Your task to perform on an android device: turn on the 24-hour format for clock Image 0: 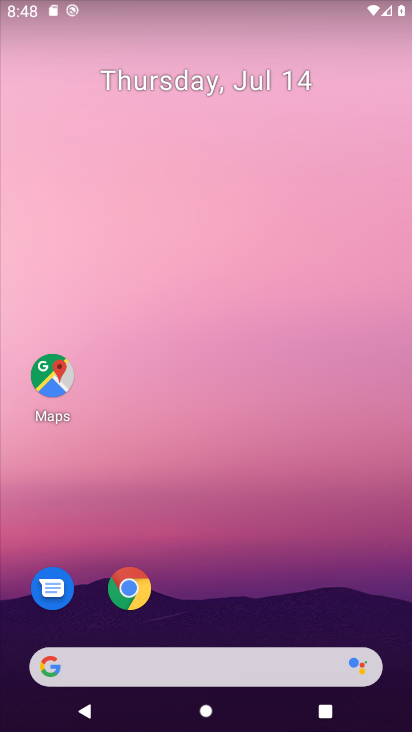
Step 0: drag from (365, 588) to (361, 111)
Your task to perform on an android device: turn on the 24-hour format for clock Image 1: 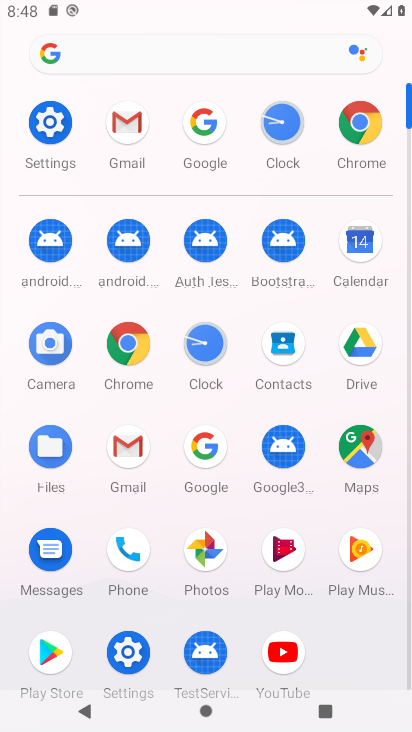
Step 1: click (201, 341)
Your task to perform on an android device: turn on the 24-hour format for clock Image 2: 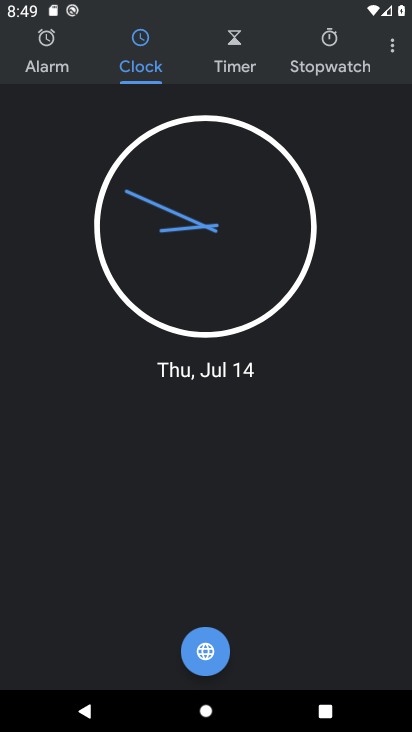
Step 2: click (392, 49)
Your task to perform on an android device: turn on the 24-hour format for clock Image 3: 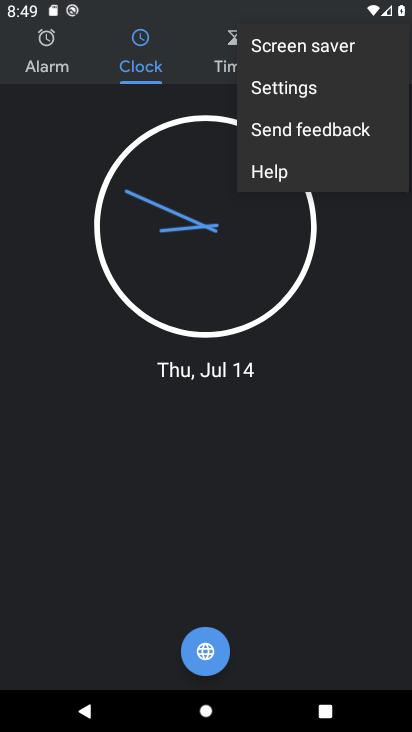
Step 3: click (312, 90)
Your task to perform on an android device: turn on the 24-hour format for clock Image 4: 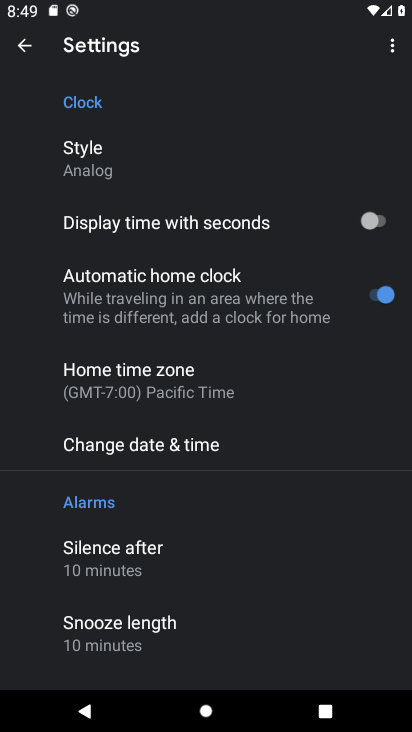
Step 4: drag from (336, 429) to (340, 351)
Your task to perform on an android device: turn on the 24-hour format for clock Image 5: 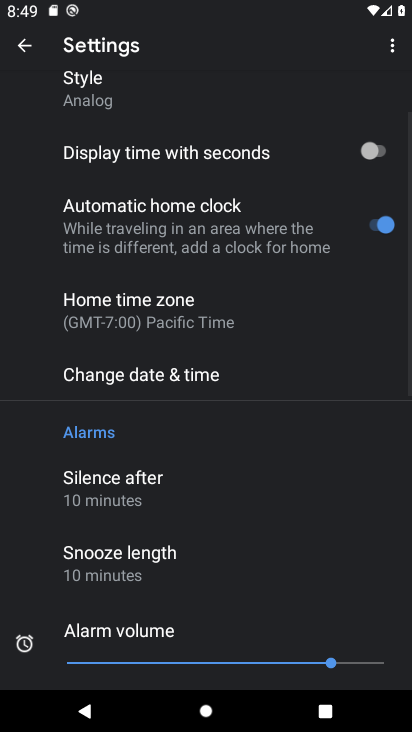
Step 5: drag from (351, 452) to (349, 380)
Your task to perform on an android device: turn on the 24-hour format for clock Image 6: 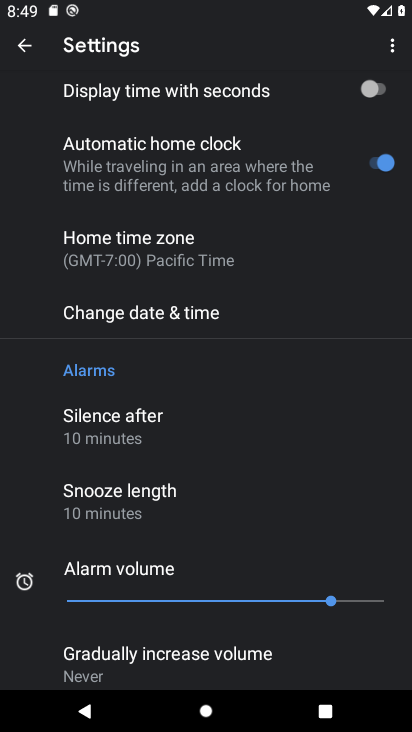
Step 6: drag from (342, 428) to (345, 348)
Your task to perform on an android device: turn on the 24-hour format for clock Image 7: 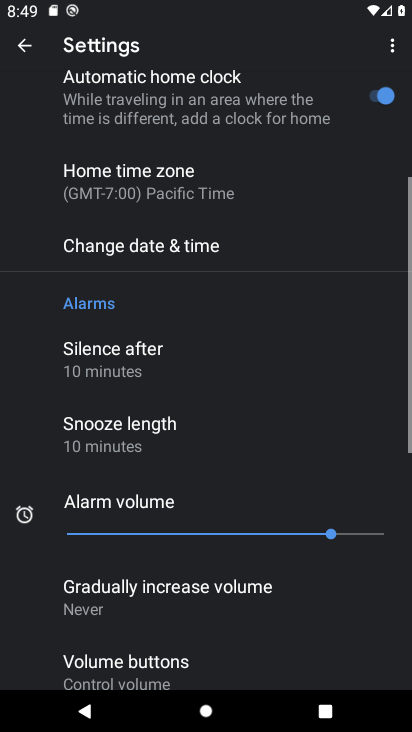
Step 7: drag from (364, 444) to (363, 332)
Your task to perform on an android device: turn on the 24-hour format for clock Image 8: 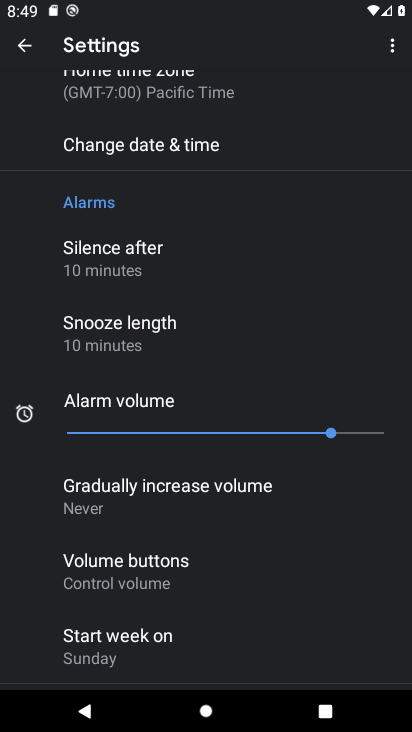
Step 8: drag from (368, 476) to (366, 398)
Your task to perform on an android device: turn on the 24-hour format for clock Image 9: 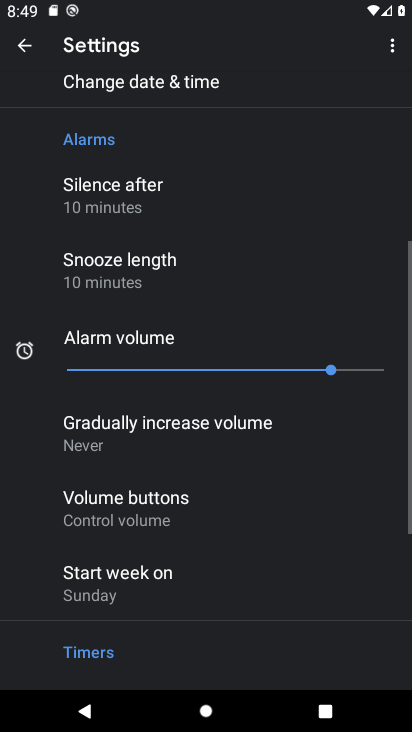
Step 9: drag from (359, 464) to (361, 357)
Your task to perform on an android device: turn on the 24-hour format for clock Image 10: 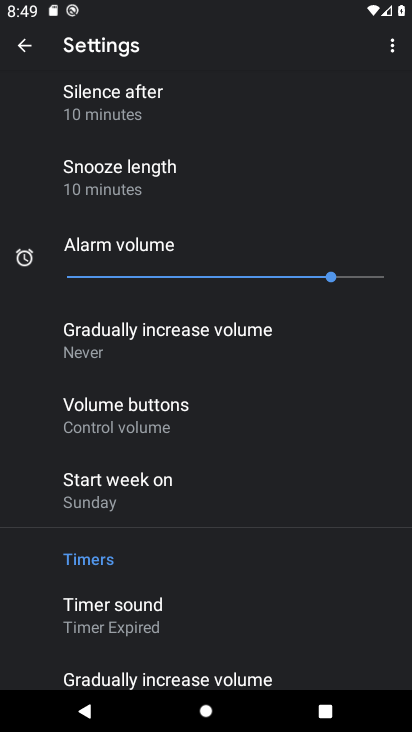
Step 10: drag from (365, 484) to (364, 322)
Your task to perform on an android device: turn on the 24-hour format for clock Image 11: 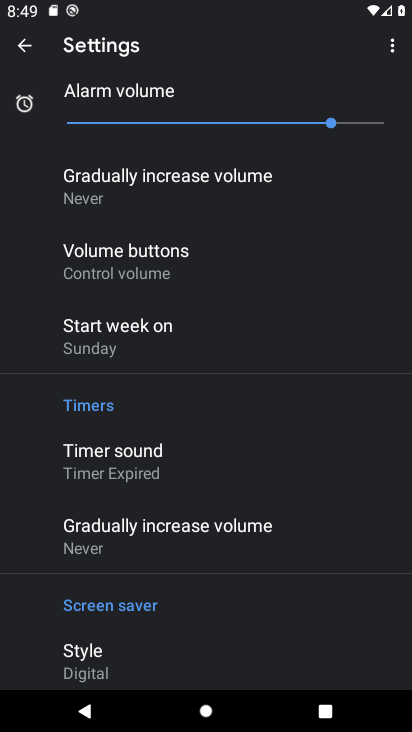
Step 11: drag from (368, 475) to (369, 291)
Your task to perform on an android device: turn on the 24-hour format for clock Image 12: 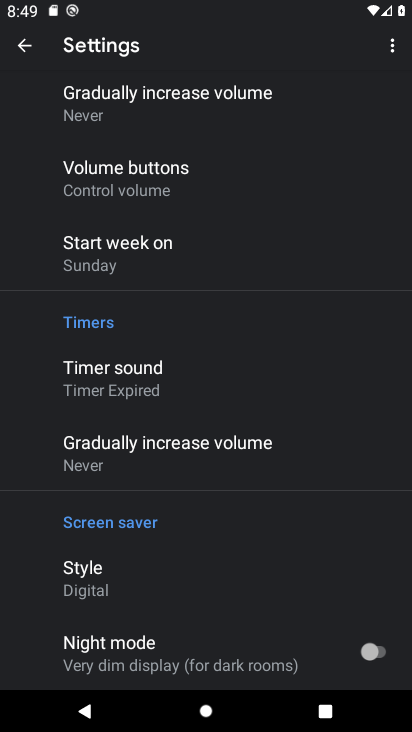
Step 12: drag from (348, 243) to (344, 352)
Your task to perform on an android device: turn on the 24-hour format for clock Image 13: 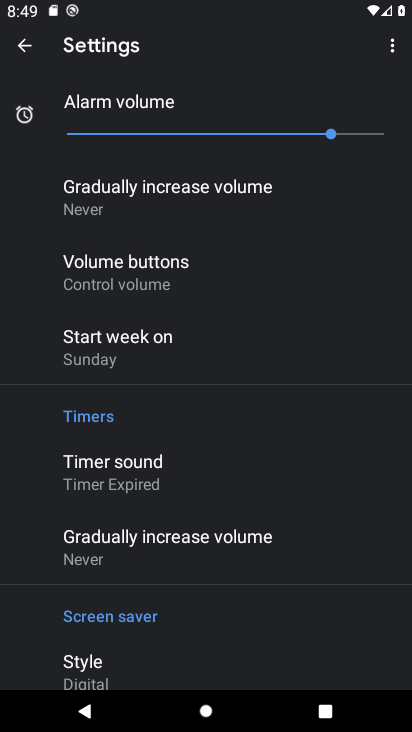
Step 13: drag from (352, 205) to (348, 294)
Your task to perform on an android device: turn on the 24-hour format for clock Image 14: 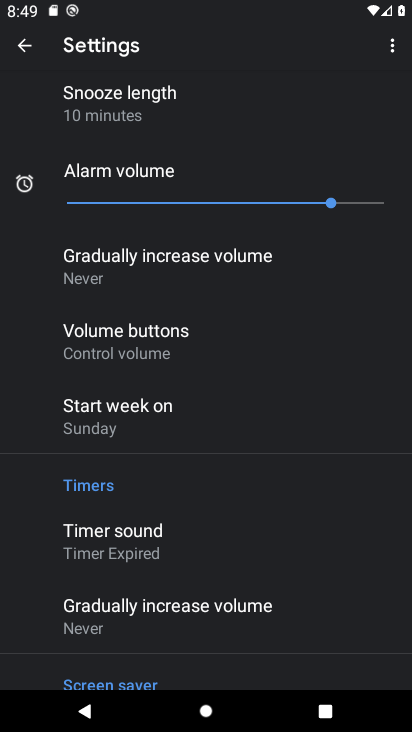
Step 14: drag from (370, 146) to (371, 240)
Your task to perform on an android device: turn on the 24-hour format for clock Image 15: 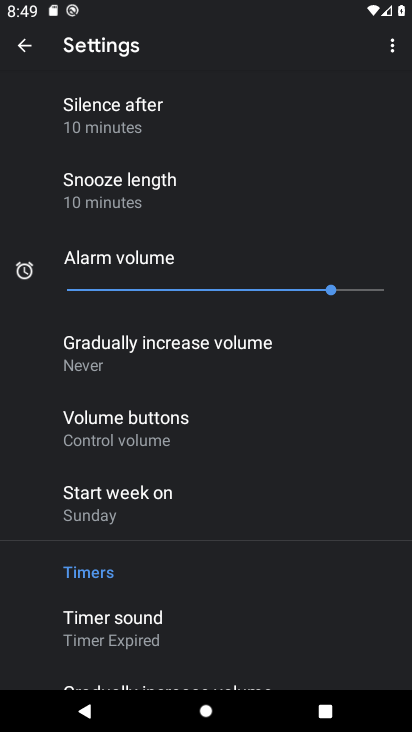
Step 15: drag from (371, 168) to (365, 291)
Your task to perform on an android device: turn on the 24-hour format for clock Image 16: 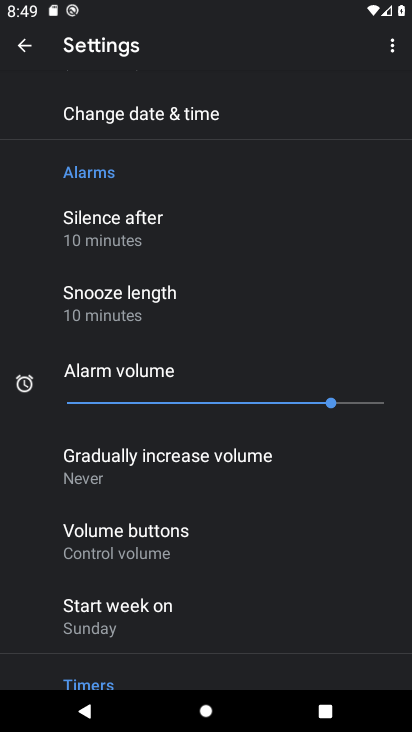
Step 16: drag from (354, 189) to (354, 283)
Your task to perform on an android device: turn on the 24-hour format for clock Image 17: 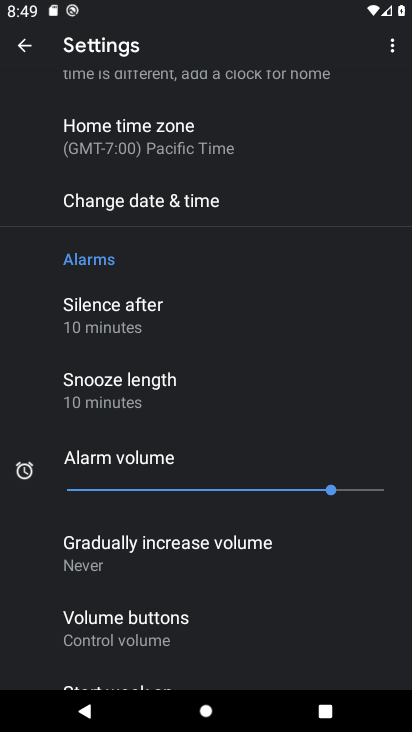
Step 17: drag from (359, 199) to (359, 303)
Your task to perform on an android device: turn on the 24-hour format for clock Image 18: 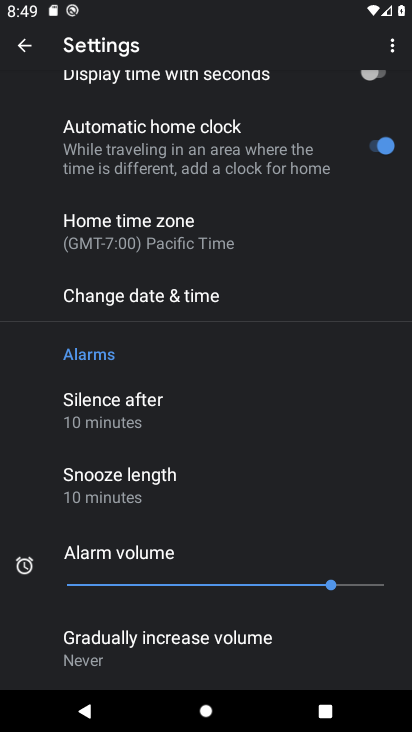
Step 18: drag from (337, 142) to (338, 255)
Your task to perform on an android device: turn on the 24-hour format for clock Image 19: 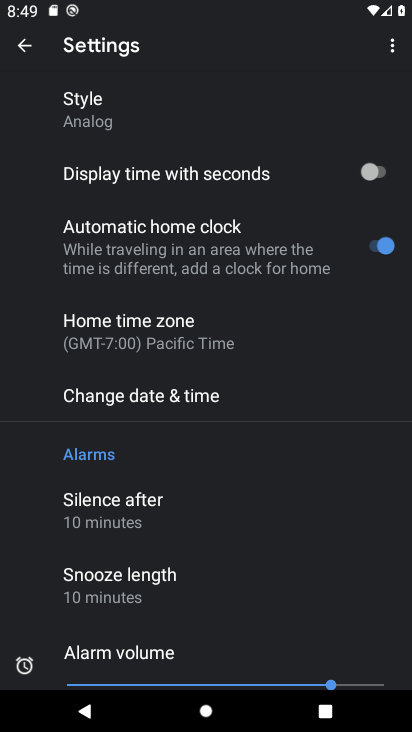
Step 19: click (278, 393)
Your task to perform on an android device: turn on the 24-hour format for clock Image 20: 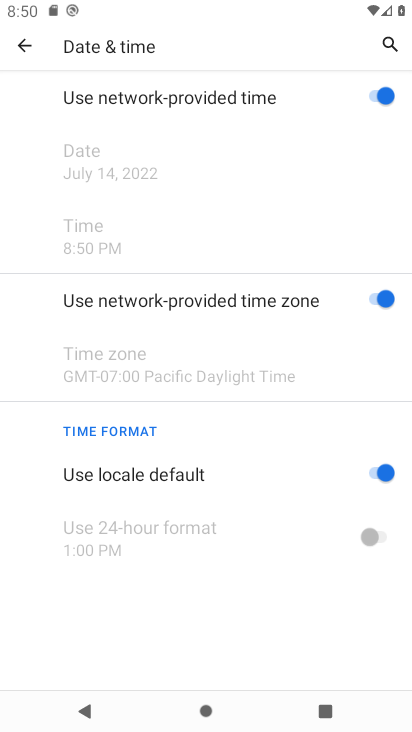
Step 20: click (375, 466)
Your task to perform on an android device: turn on the 24-hour format for clock Image 21: 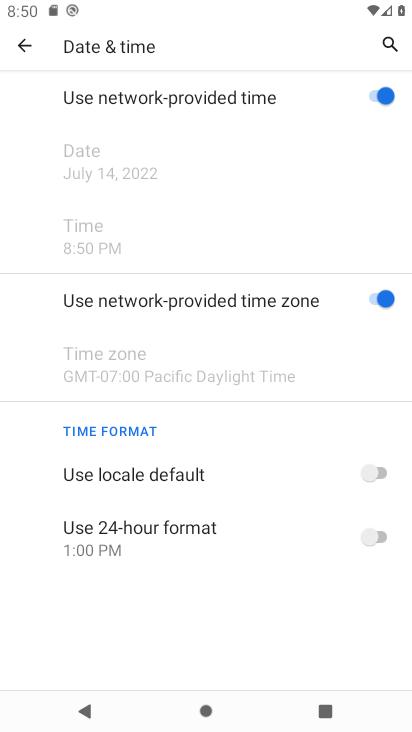
Step 21: click (378, 546)
Your task to perform on an android device: turn on the 24-hour format for clock Image 22: 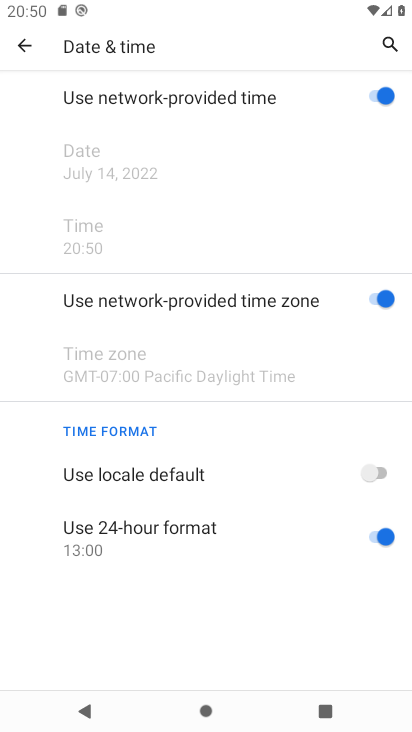
Step 22: task complete